Your task to perform on an android device: check android version Image 0: 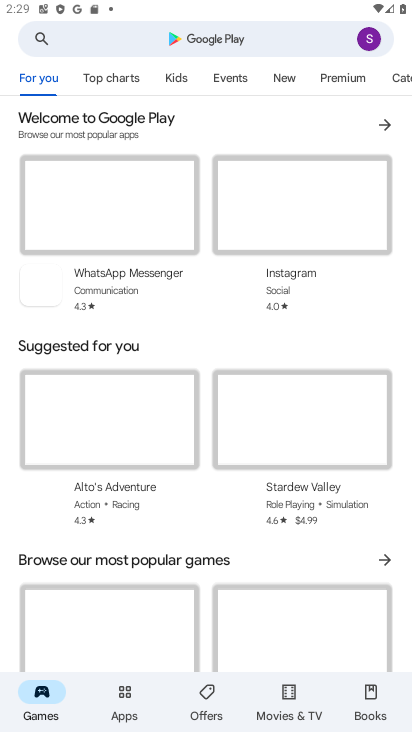
Step 0: press home button
Your task to perform on an android device: check android version Image 1: 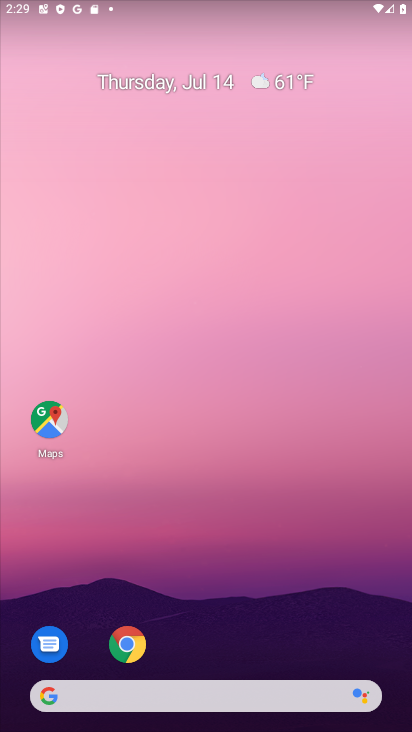
Step 1: drag from (298, 635) to (274, 125)
Your task to perform on an android device: check android version Image 2: 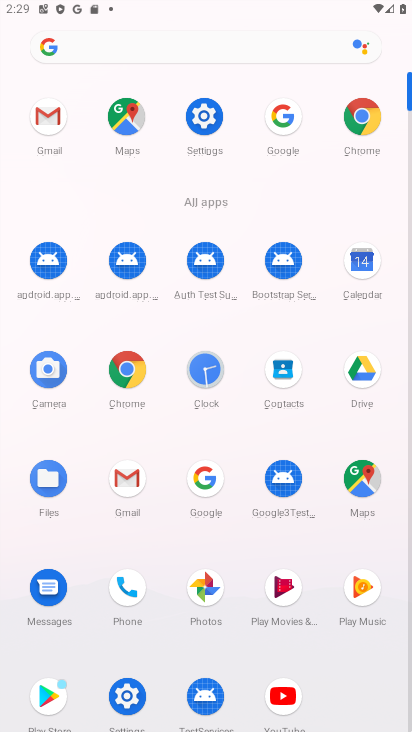
Step 2: click (185, 124)
Your task to perform on an android device: check android version Image 3: 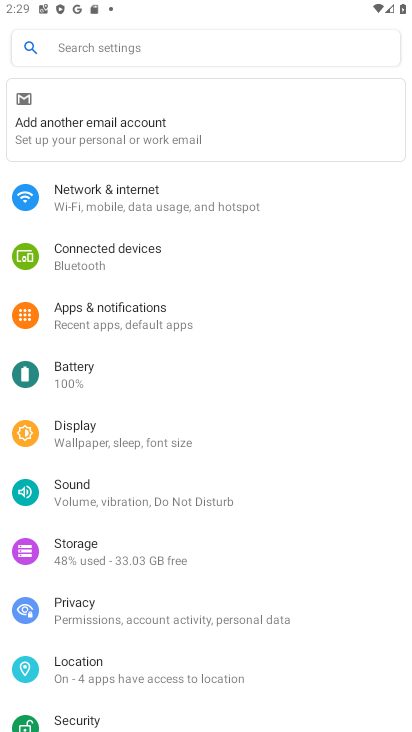
Step 3: drag from (226, 686) to (389, 188)
Your task to perform on an android device: check android version Image 4: 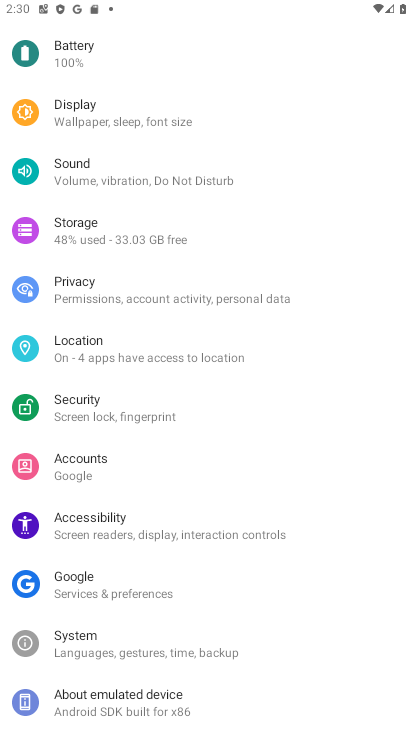
Step 4: click (135, 699)
Your task to perform on an android device: check android version Image 5: 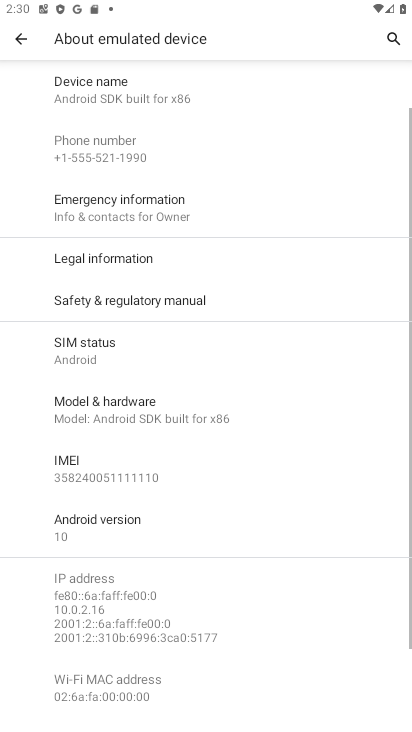
Step 5: click (83, 519)
Your task to perform on an android device: check android version Image 6: 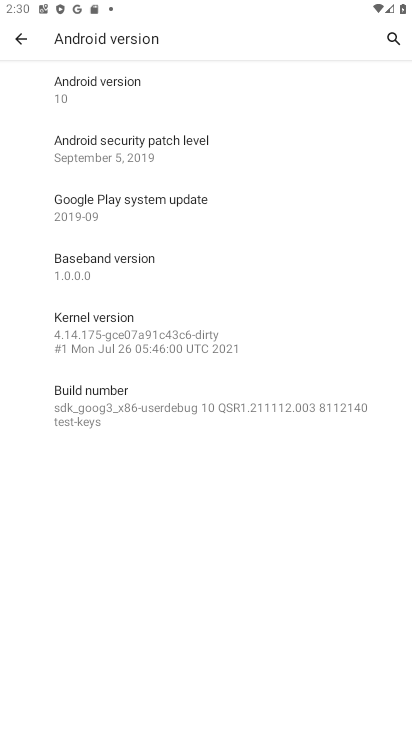
Step 6: task complete